Your task to perform on an android device: change the clock display to digital Image 0: 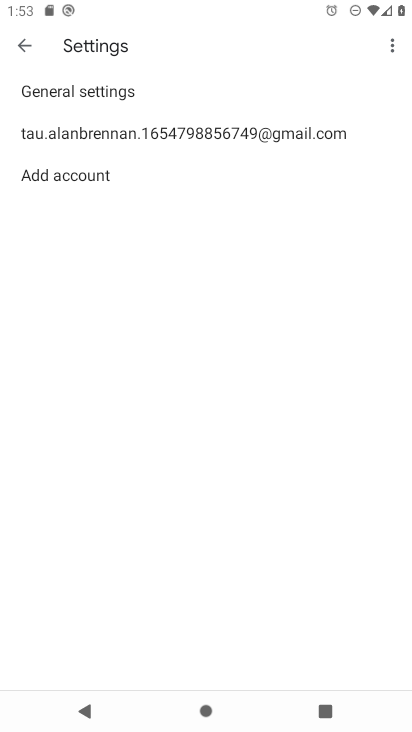
Step 0: press home button
Your task to perform on an android device: change the clock display to digital Image 1: 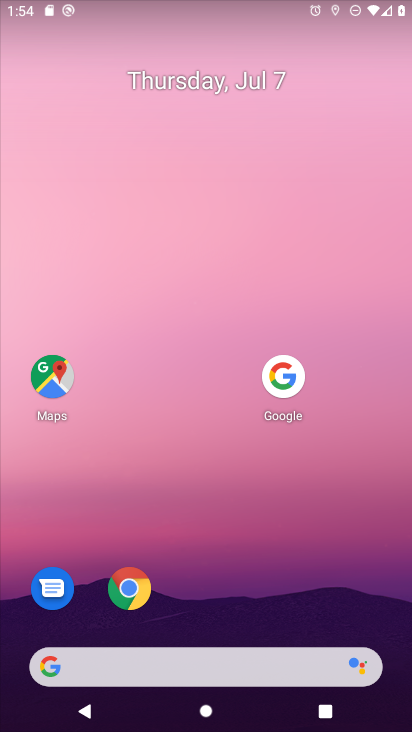
Step 1: drag from (189, 657) to (384, 0)
Your task to perform on an android device: change the clock display to digital Image 2: 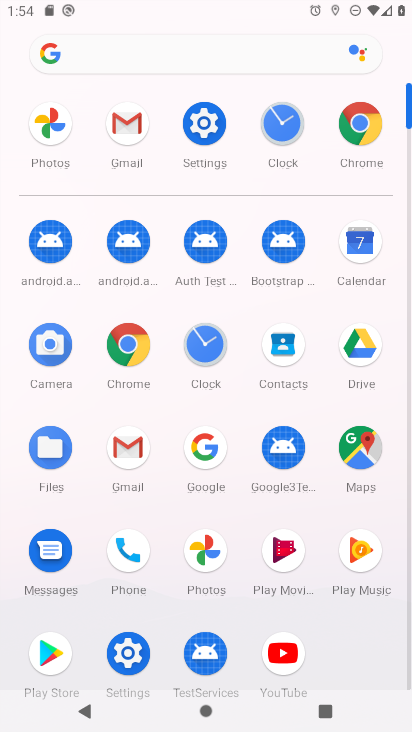
Step 2: click (285, 128)
Your task to perform on an android device: change the clock display to digital Image 3: 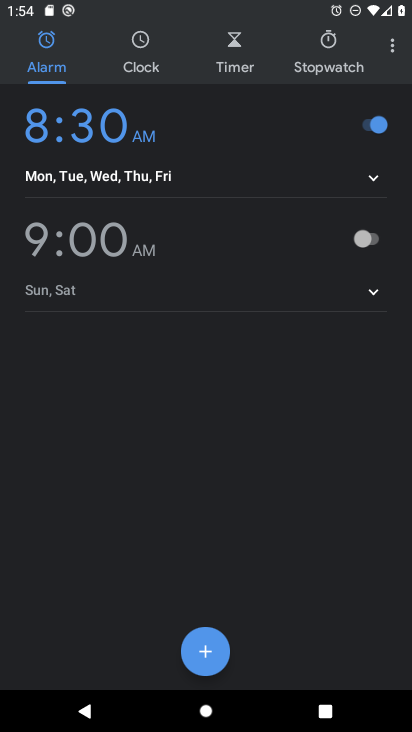
Step 3: click (392, 46)
Your task to perform on an android device: change the clock display to digital Image 4: 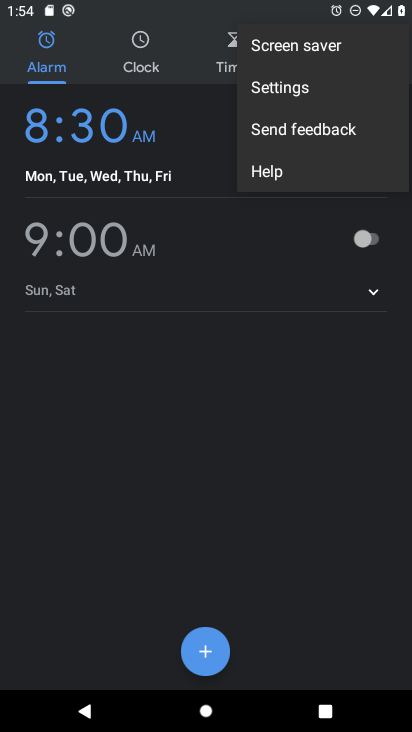
Step 4: click (307, 87)
Your task to perform on an android device: change the clock display to digital Image 5: 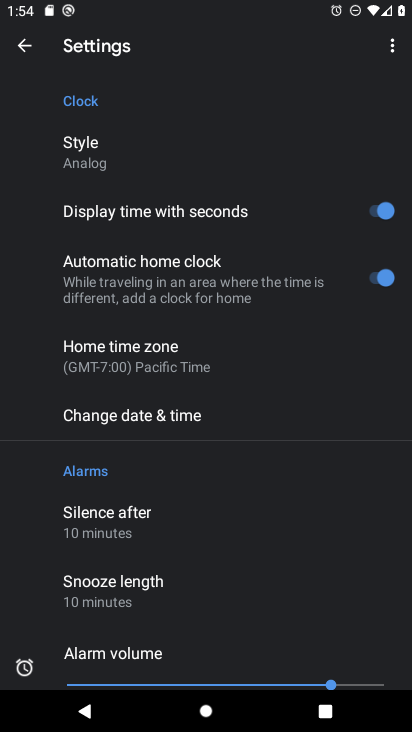
Step 5: click (94, 156)
Your task to perform on an android device: change the clock display to digital Image 6: 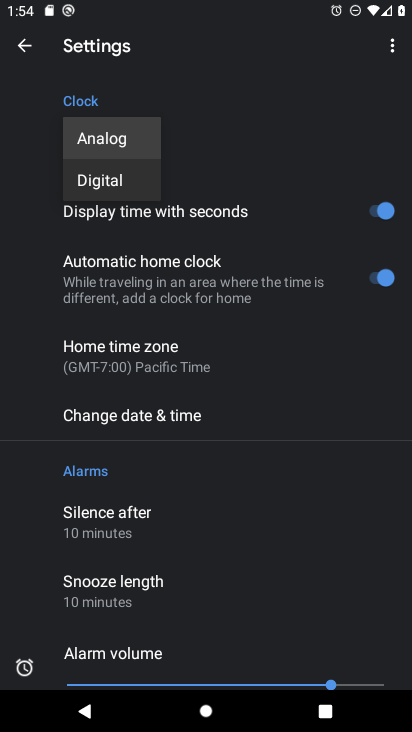
Step 6: click (102, 176)
Your task to perform on an android device: change the clock display to digital Image 7: 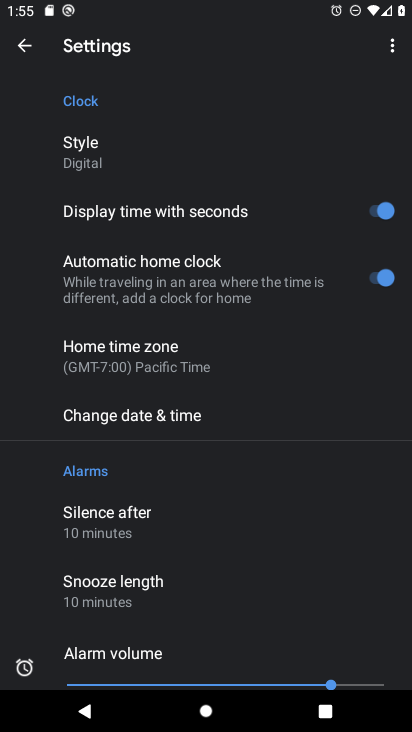
Step 7: task complete